Your task to perform on an android device: Go to Amazon Image 0: 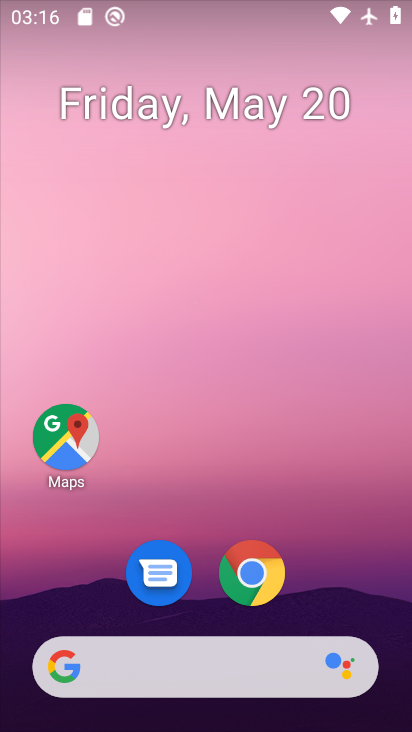
Step 0: click (231, 591)
Your task to perform on an android device: Go to Amazon Image 1: 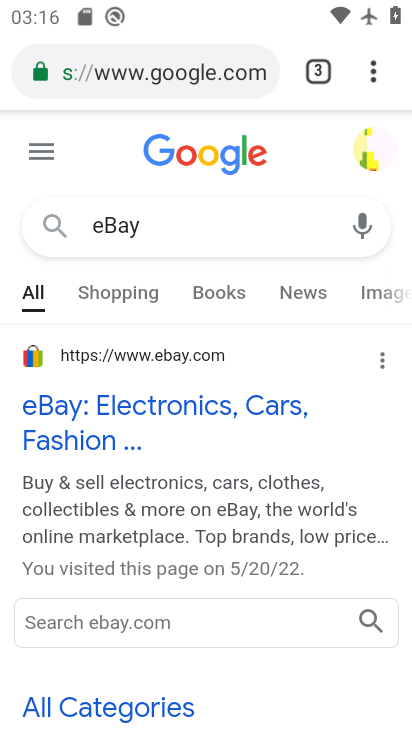
Step 1: click (311, 67)
Your task to perform on an android device: Go to Amazon Image 2: 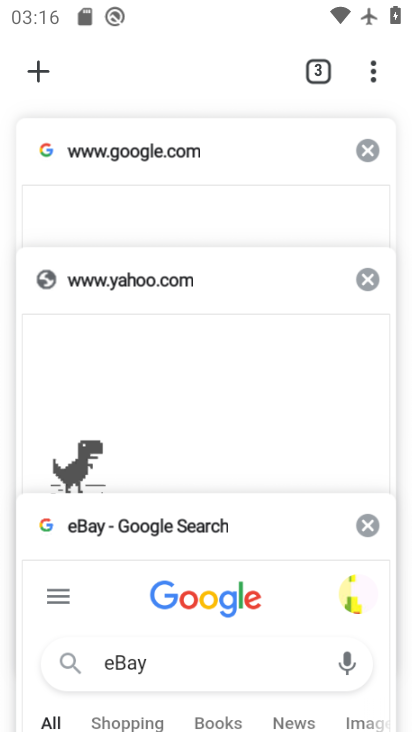
Step 2: click (37, 80)
Your task to perform on an android device: Go to Amazon Image 3: 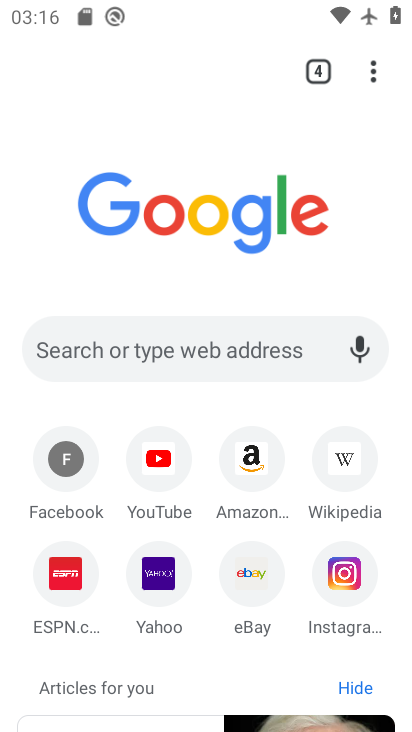
Step 3: click (249, 482)
Your task to perform on an android device: Go to Amazon Image 4: 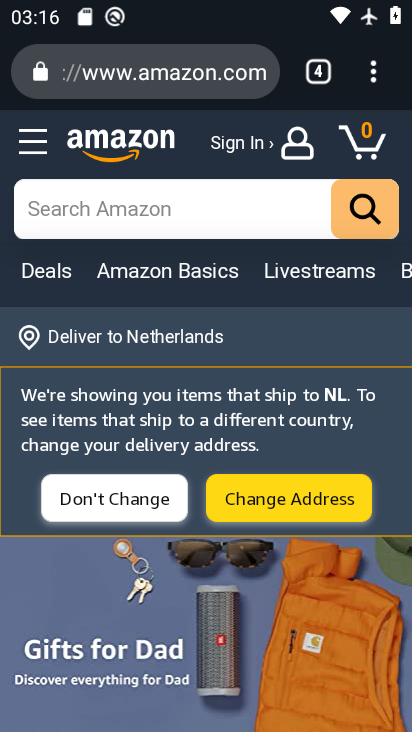
Step 4: task complete